Your task to perform on an android device: Is it going to rain this weekend? Image 0: 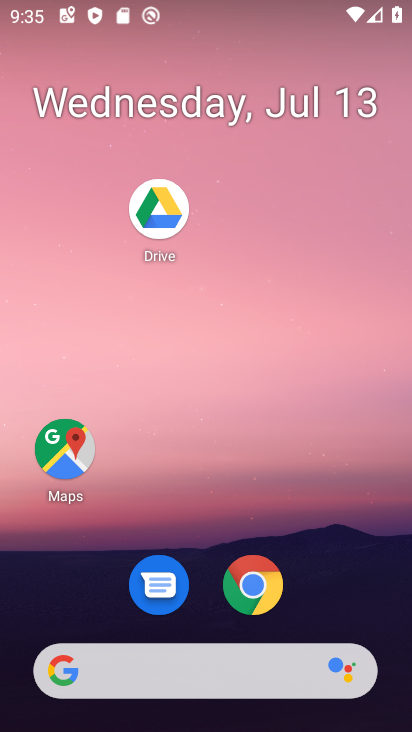
Step 0: click (166, 664)
Your task to perform on an android device: Is it going to rain this weekend? Image 1: 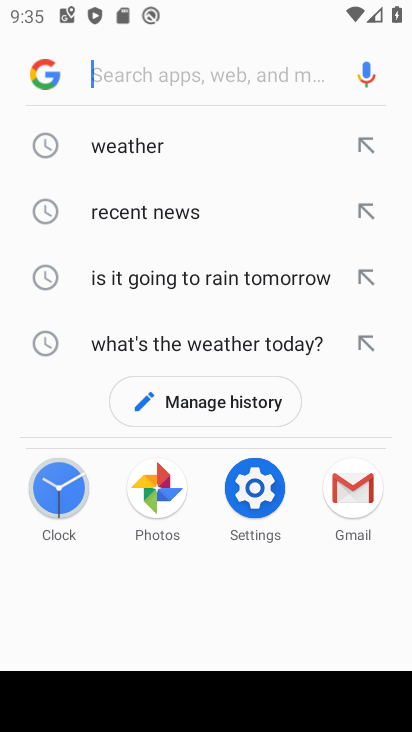
Step 1: click (144, 147)
Your task to perform on an android device: Is it going to rain this weekend? Image 2: 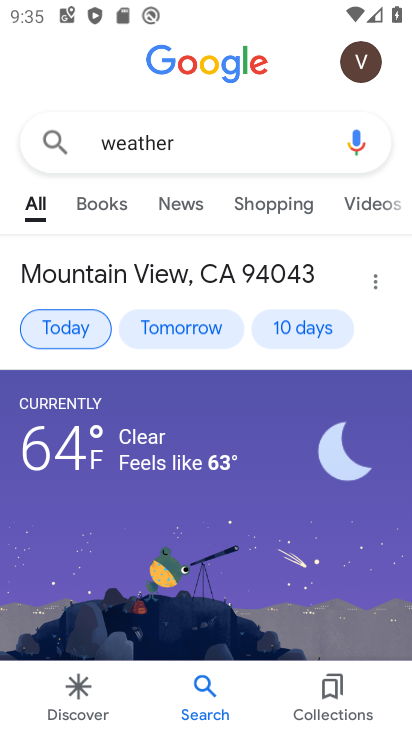
Step 2: click (305, 325)
Your task to perform on an android device: Is it going to rain this weekend? Image 3: 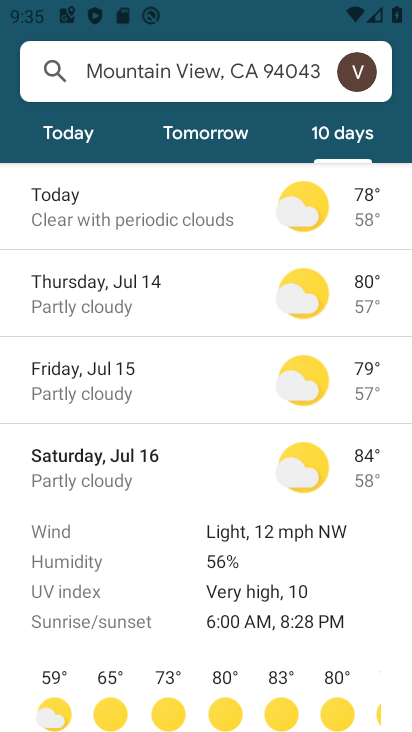
Step 3: task complete